Your task to perform on an android device: turn off translation in the chrome app Image 0: 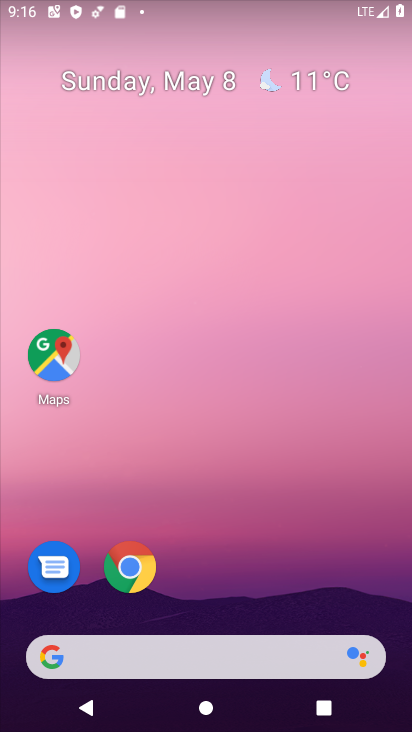
Step 0: click (137, 564)
Your task to perform on an android device: turn off translation in the chrome app Image 1: 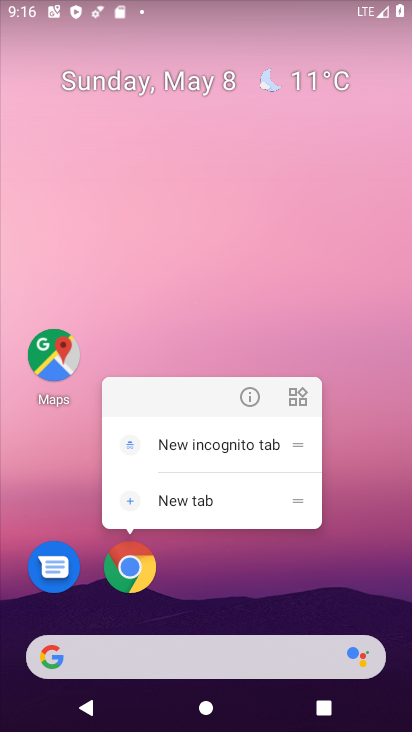
Step 1: click (127, 576)
Your task to perform on an android device: turn off translation in the chrome app Image 2: 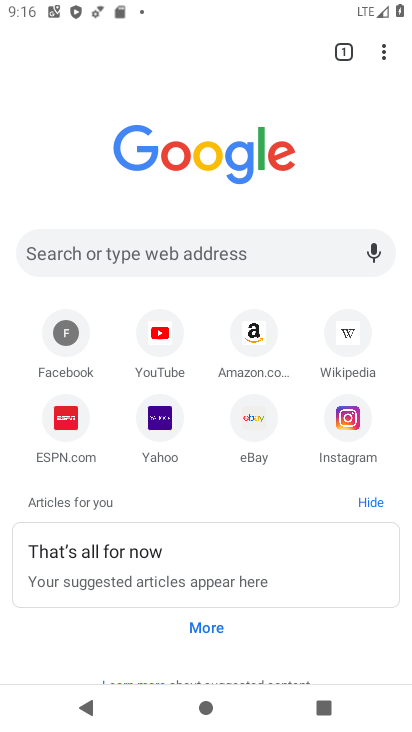
Step 2: drag from (383, 53) to (215, 491)
Your task to perform on an android device: turn off translation in the chrome app Image 3: 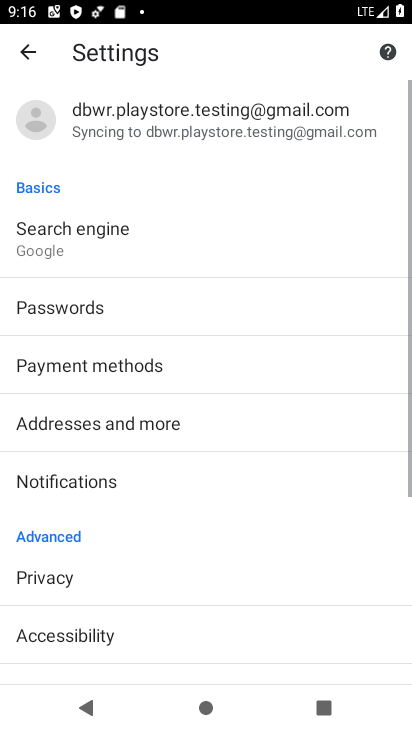
Step 3: drag from (140, 558) to (224, 184)
Your task to perform on an android device: turn off translation in the chrome app Image 4: 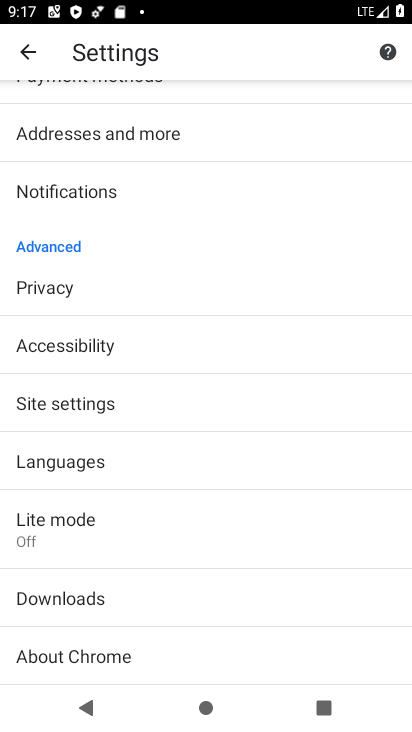
Step 4: click (95, 458)
Your task to perform on an android device: turn off translation in the chrome app Image 5: 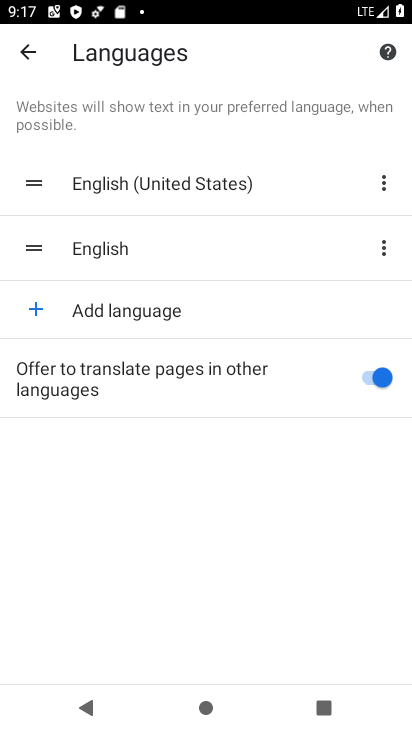
Step 5: click (376, 379)
Your task to perform on an android device: turn off translation in the chrome app Image 6: 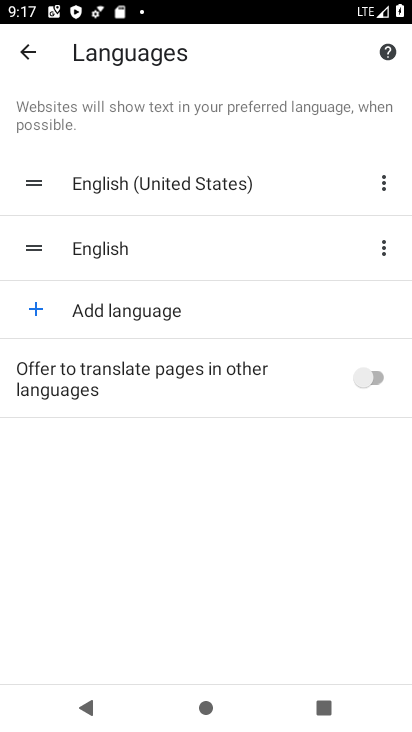
Step 6: task complete